Your task to perform on an android device: Open Android settings Image 0: 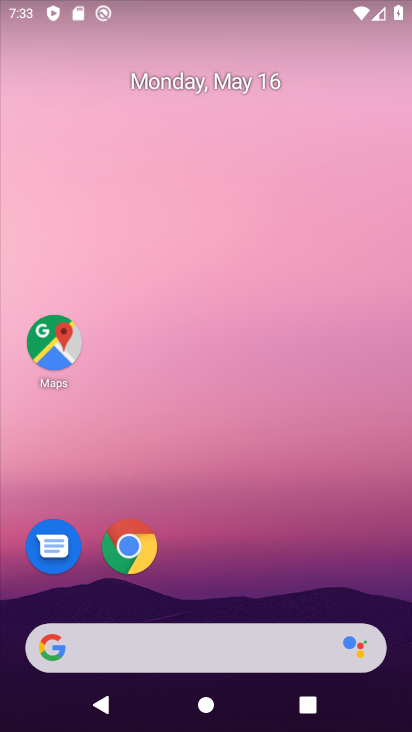
Step 0: drag from (370, 534) to (345, 36)
Your task to perform on an android device: Open Android settings Image 1: 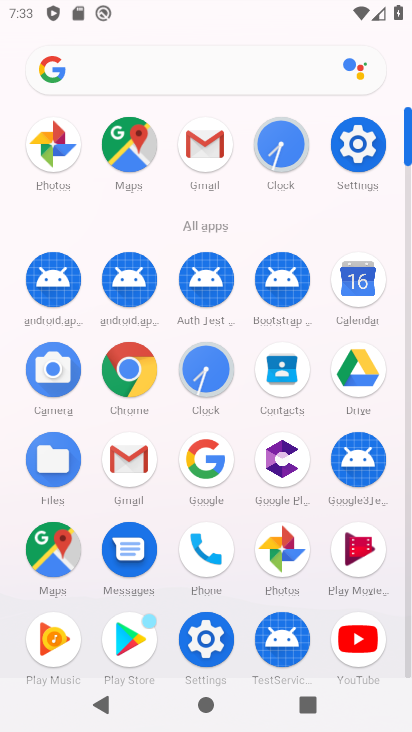
Step 1: click (356, 130)
Your task to perform on an android device: Open Android settings Image 2: 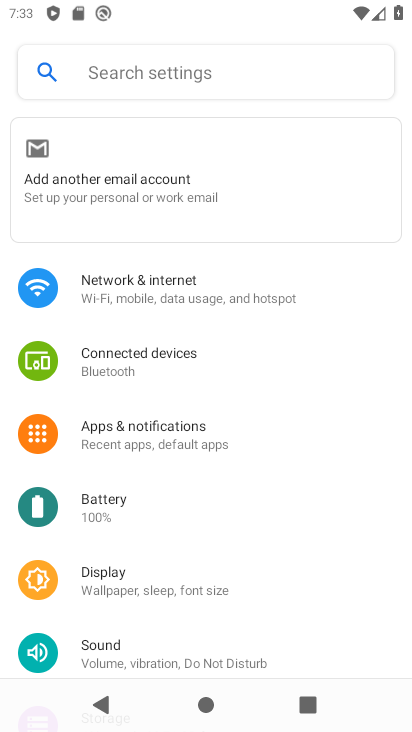
Step 2: task complete